Your task to perform on an android device: Open privacy settings Image 0: 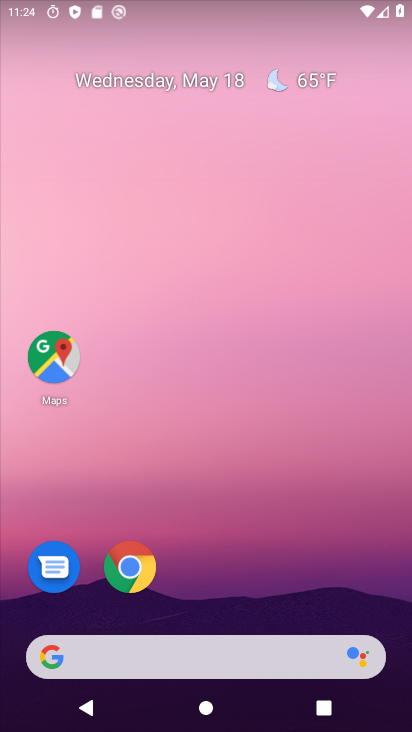
Step 0: drag from (286, 572) to (278, 1)
Your task to perform on an android device: Open privacy settings Image 1: 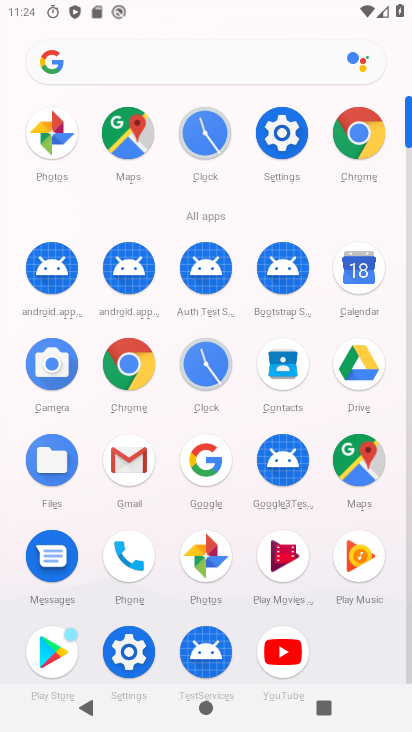
Step 1: click (289, 127)
Your task to perform on an android device: Open privacy settings Image 2: 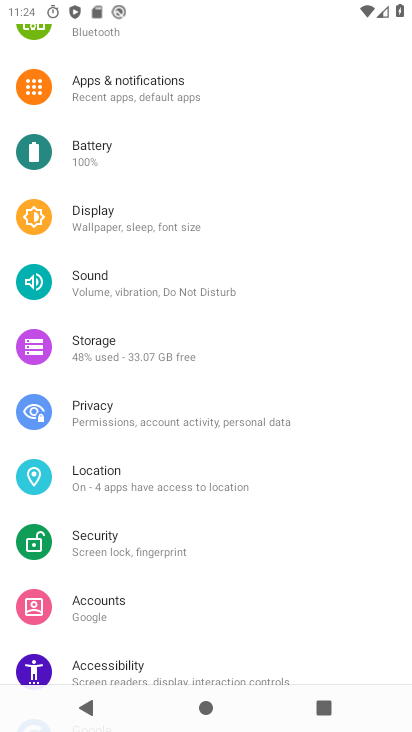
Step 2: click (169, 395)
Your task to perform on an android device: Open privacy settings Image 3: 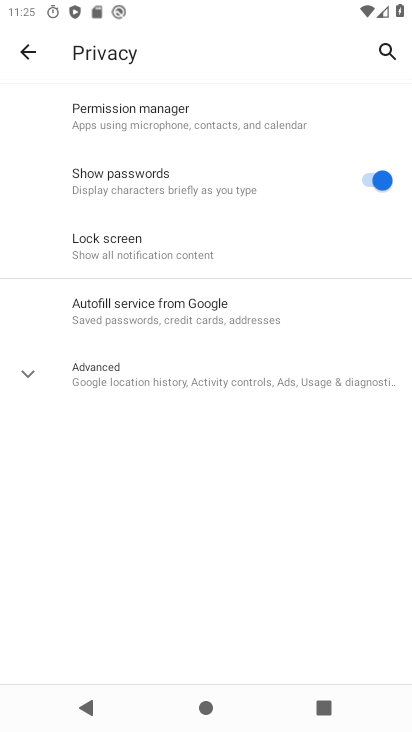
Step 3: task complete